Your task to perform on an android device: turn pop-ups on in chrome Image 0: 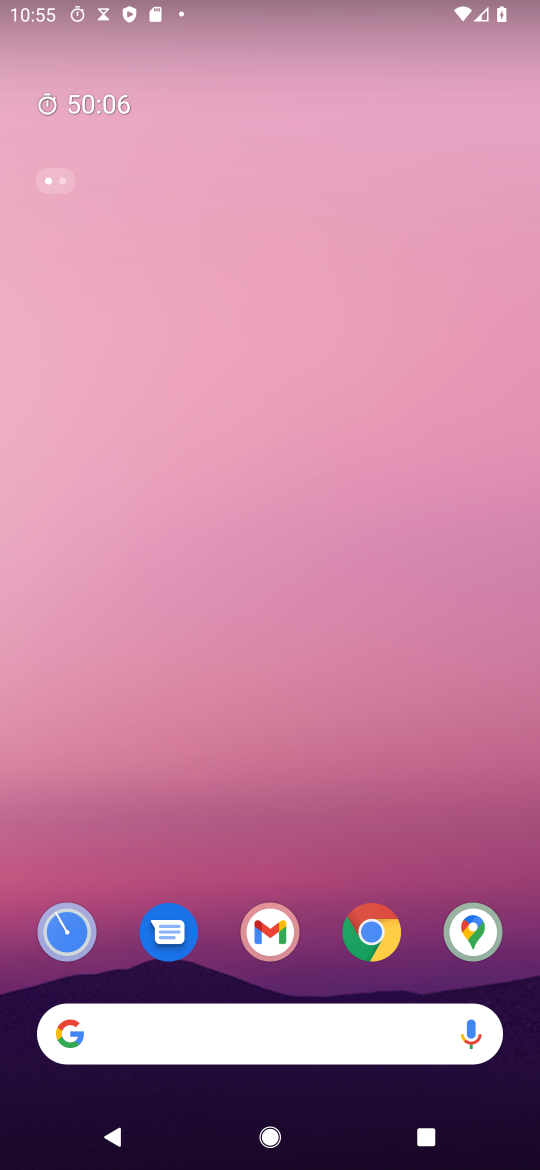
Step 0: drag from (409, 864) to (320, 107)
Your task to perform on an android device: turn pop-ups on in chrome Image 1: 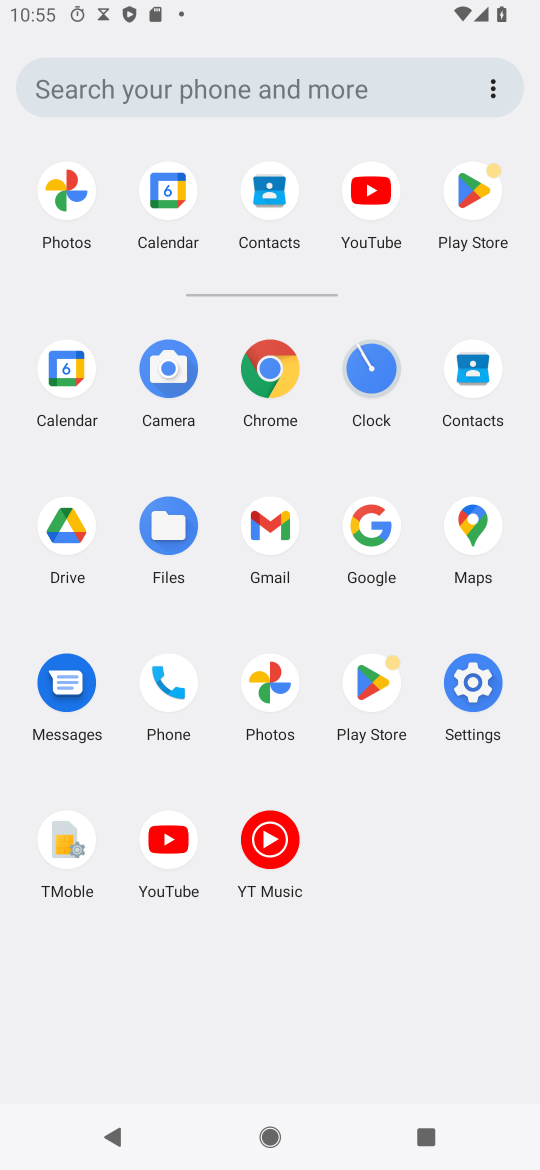
Step 1: click (270, 376)
Your task to perform on an android device: turn pop-ups on in chrome Image 2: 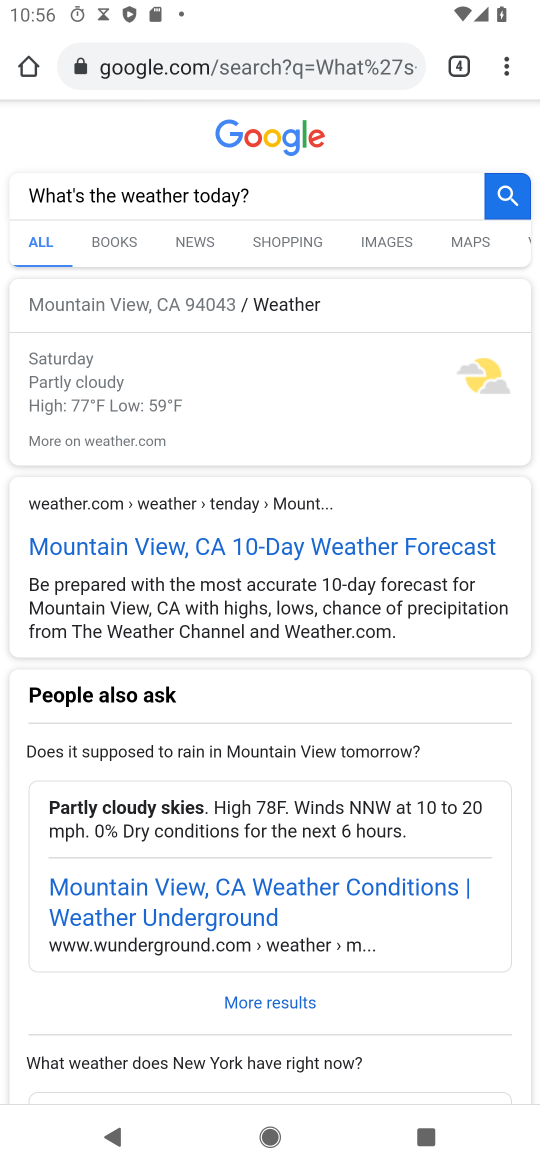
Step 2: click (498, 65)
Your task to perform on an android device: turn pop-ups on in chrome Image 3: 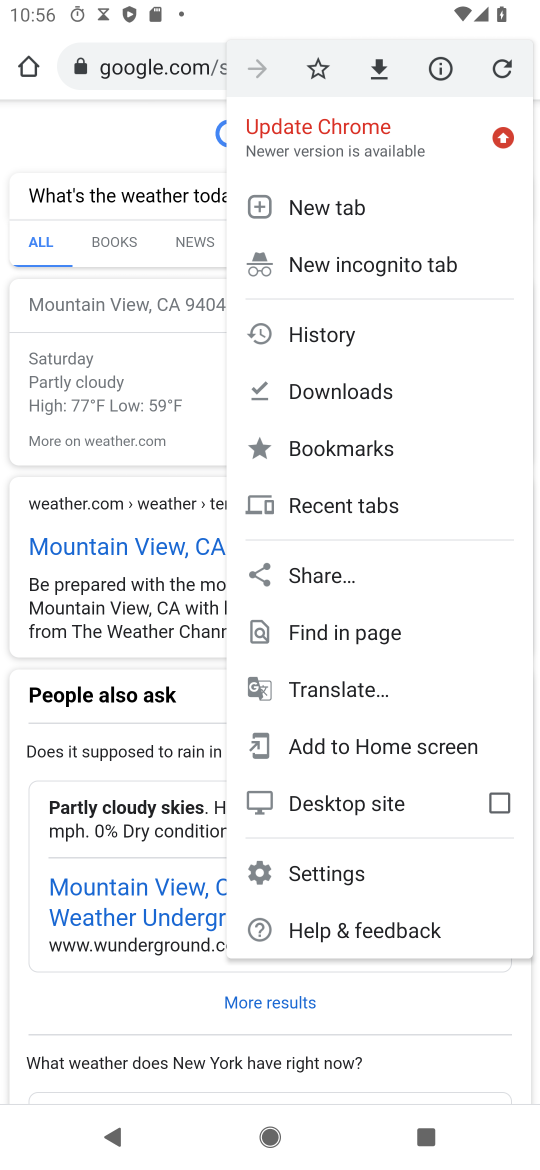
Step 3: click (354, 882)
Your task to perform on an android device: turn pop-ups on in chrome Image 4: 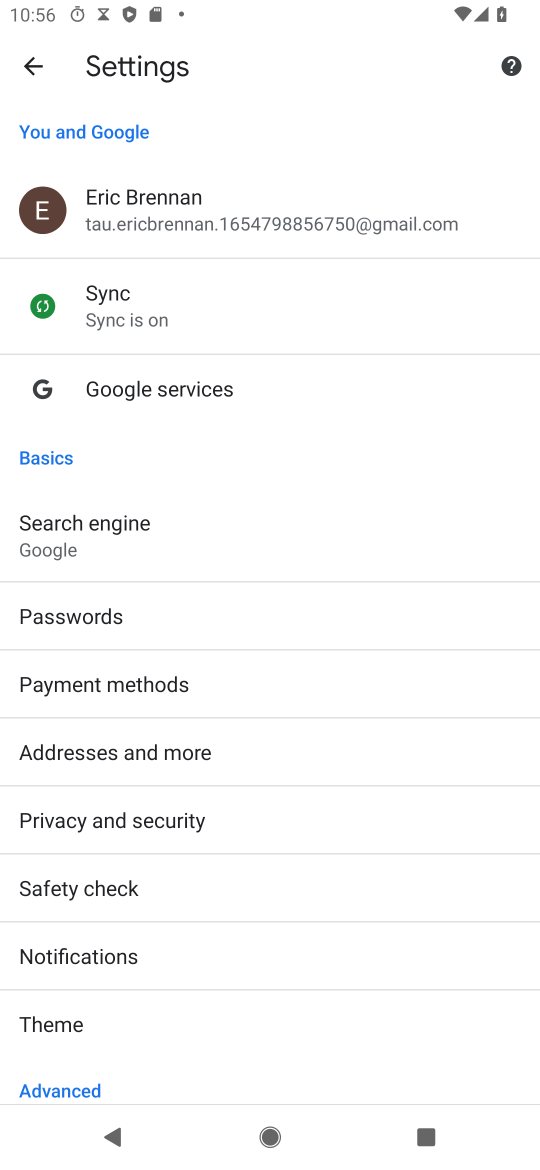
Step 4: drag from (180, 1060) to (127, 73)
Your task to perform on an android device: turn pop-ups on in chrome Image 5: 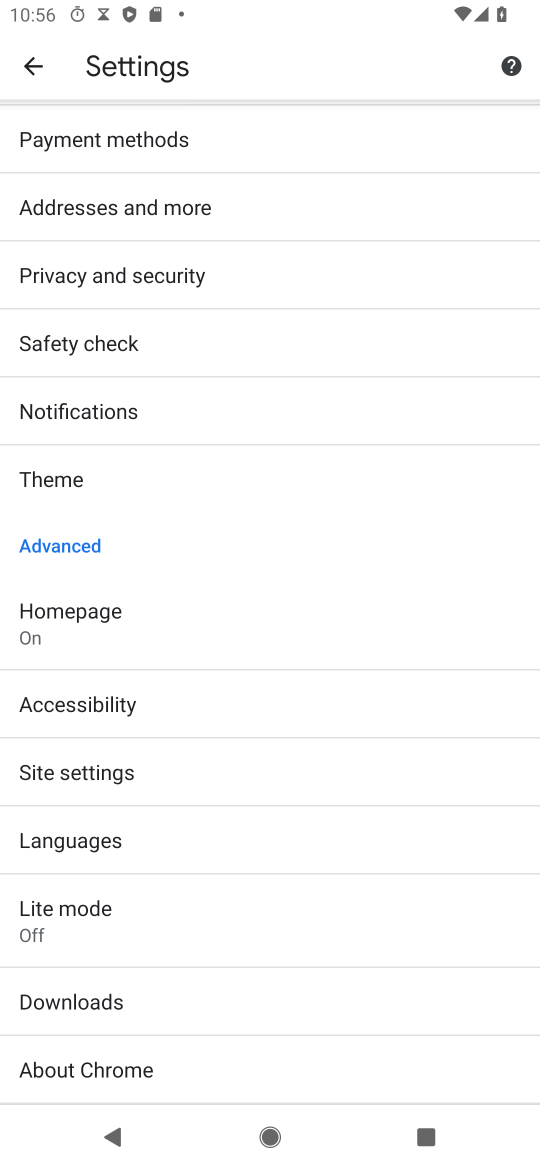
Step 5: click (120, 779)
Your task to perform on an android device: turn pop-ups on in chrome Image 6: 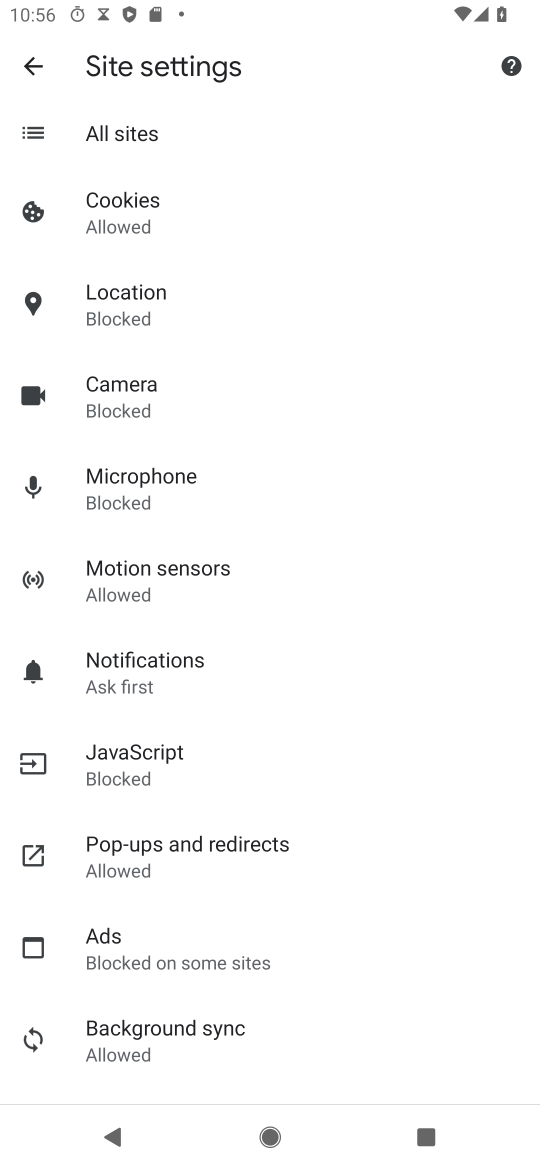
Step 6: click (231, 877)
Your task to perform on an android device: turn pop-ups on in chrome Image 7: 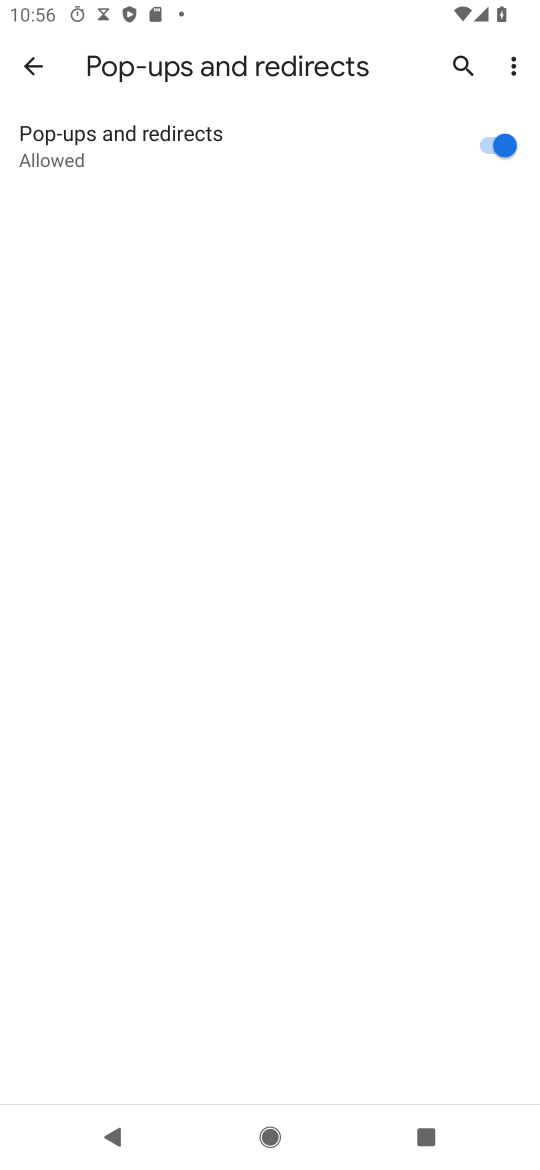
Step 7: task complete